Your task to perform on an android device: Show me recent news Image 0: 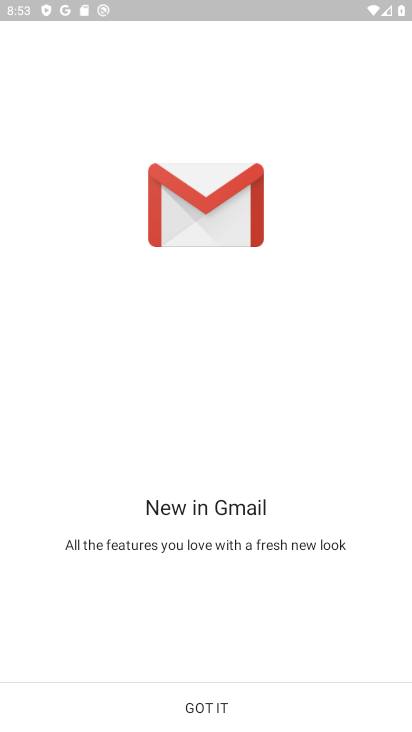
Step 0: click (263, 702)
Your task to perform on an android device: Show me recent news Image 1: 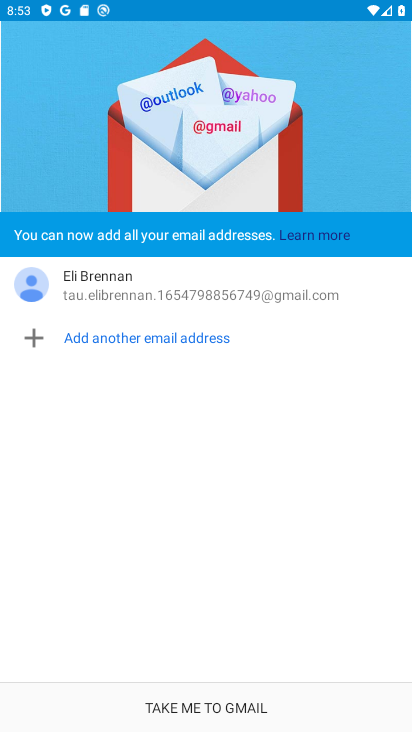
Step 1: click (210, 711)
Your task to perform on an android device: Show me recent news Image 2: 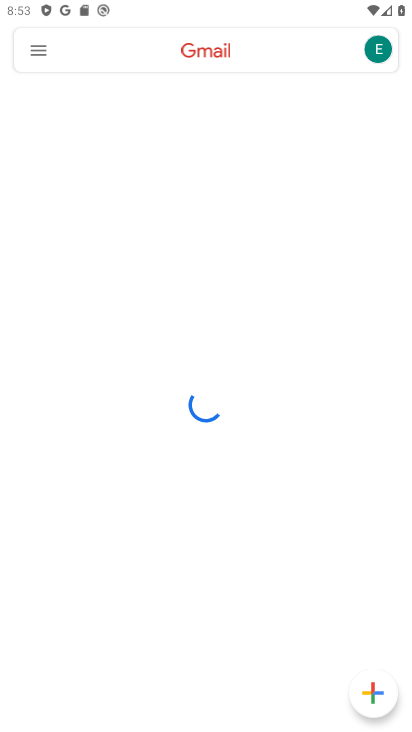
Step 2: click (38, 57)
Your task to perform on an android device: Show me recent news Image 3: 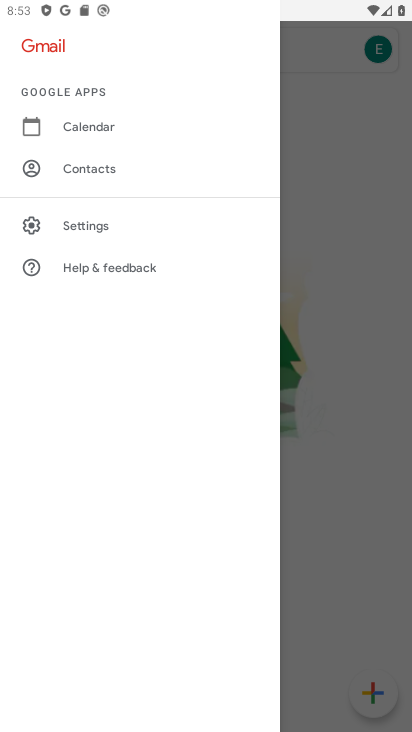
Step 3: press home button
Your task to perform on an android device: Show me recent news Image 4: 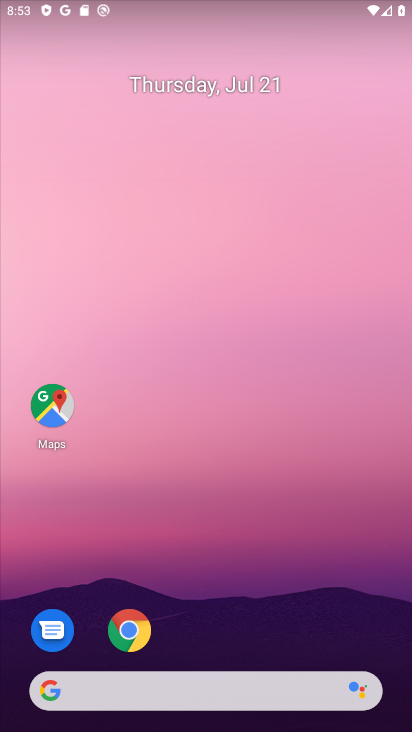
Step 4: click (135, 629)
Your task to perform on an android device: Show me recent news Image 5: 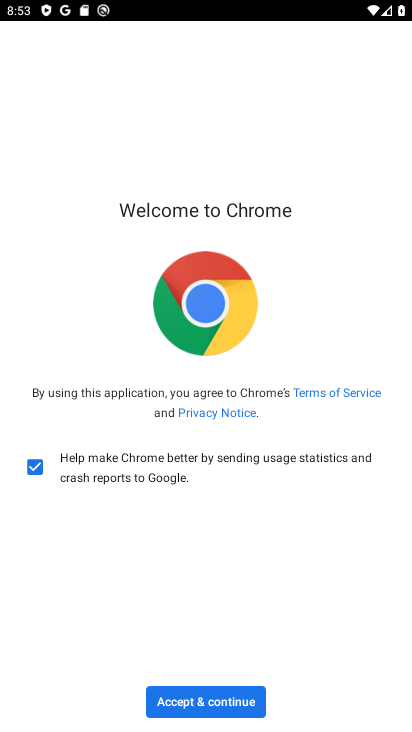
Step 5: click (237, 711)
Your task to perform on an android device: Show me recent news Image 6: 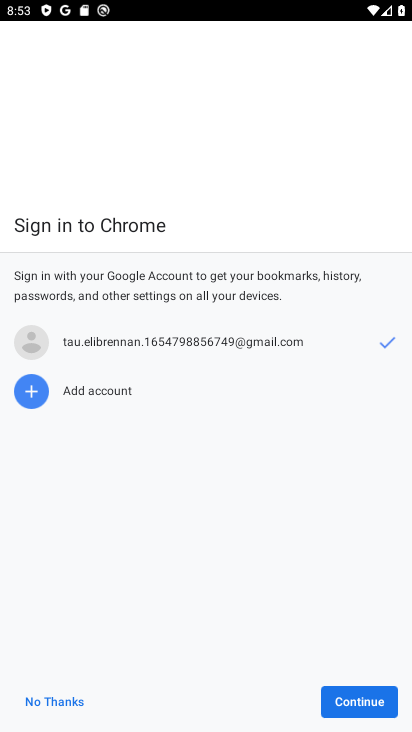
Step 6: click (362, 720)
Your task to perform on an android device: Show me recent news Image 7: 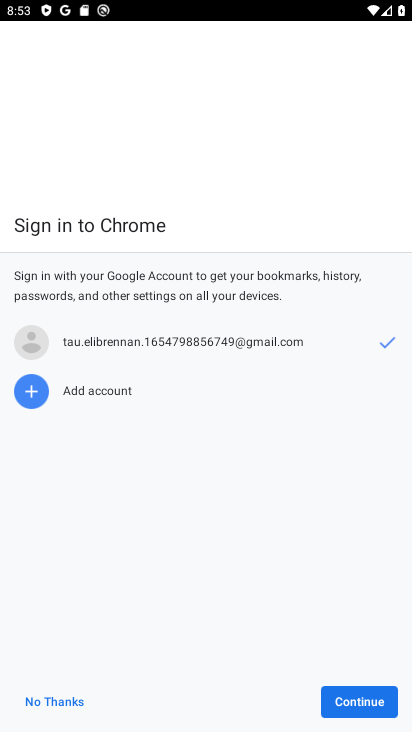
Step 7: click (370, 691)
Your task to perform on an android device: Show me recent news Image 8: 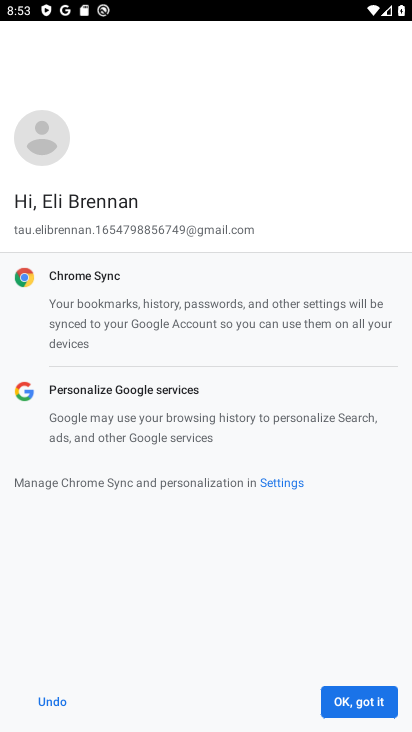
Step 8: click (365, 702)
Your task to perform on an android device: Show me recent news Image 9: 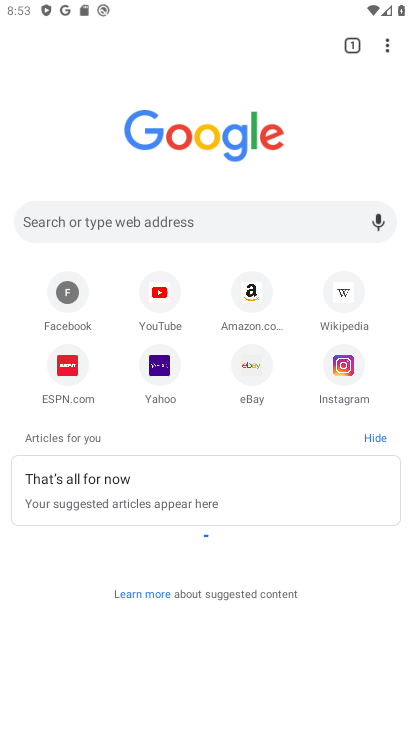
Step 9: click (169, 214)
Your task to perform on an android device: Show me recent news Image 10: 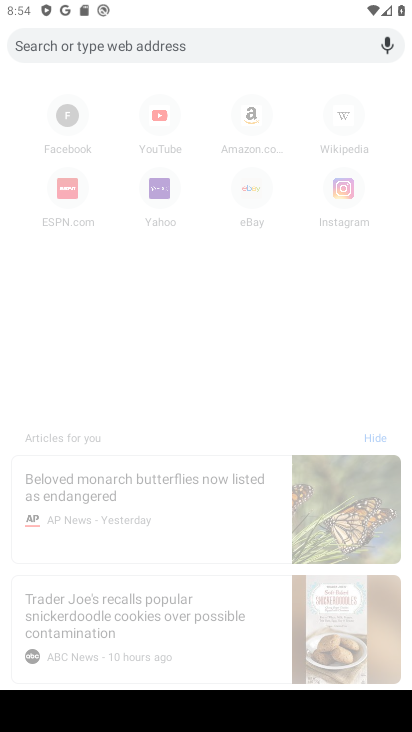
Step 10: type "news"
Your task to perform on an android device: Show me recent news Image 11: 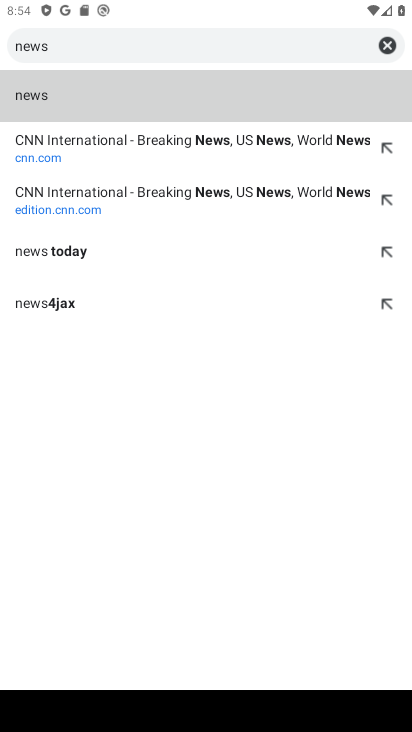
Step 11: click (41, 111)
Your task to perform on an android device: Show me recent news Image 12: 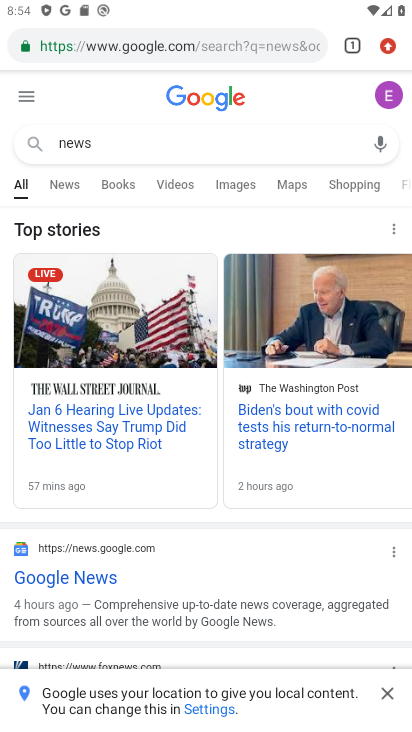
Step 12: click (78, 577)
Your task to perform on an android device: Show me recent news Image 13: 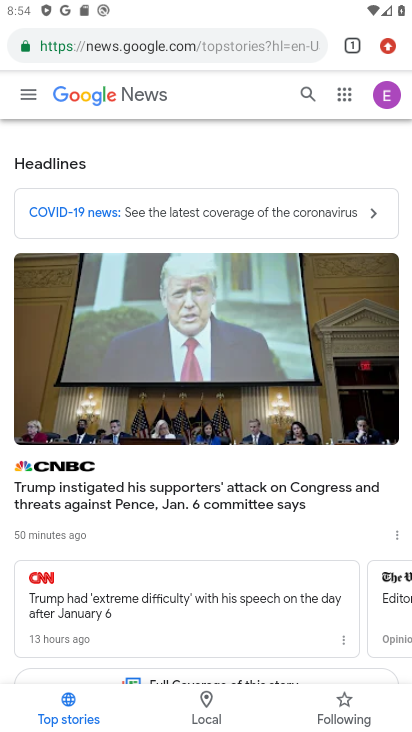
Step 13: task complete